Your task to perform on an android device: turn notification dots on Image 0: 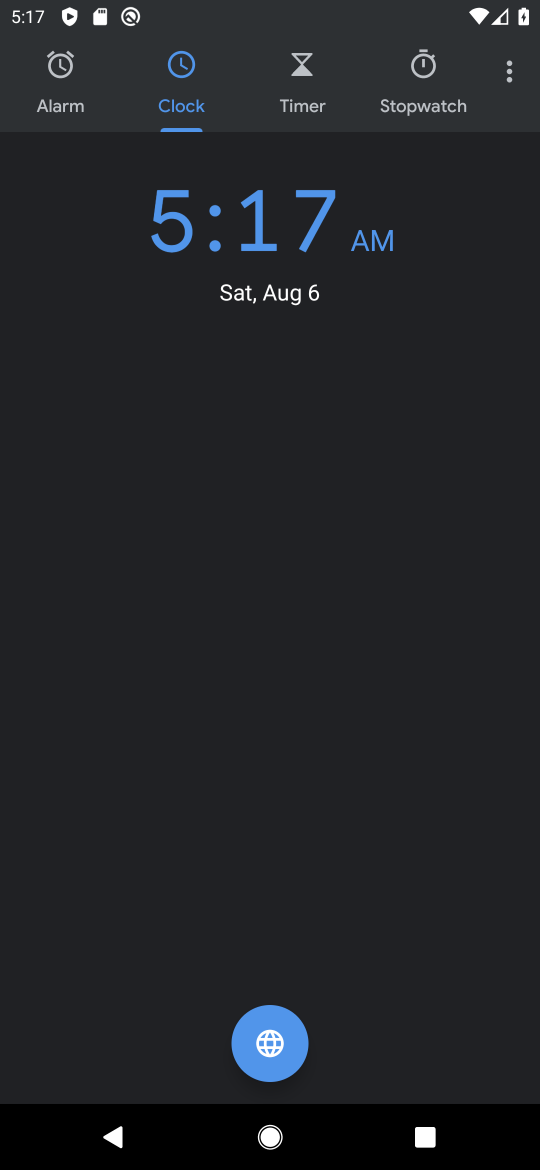
Step 0: press home button
Your task to perform on an android device: turn notification dots on Image 1: 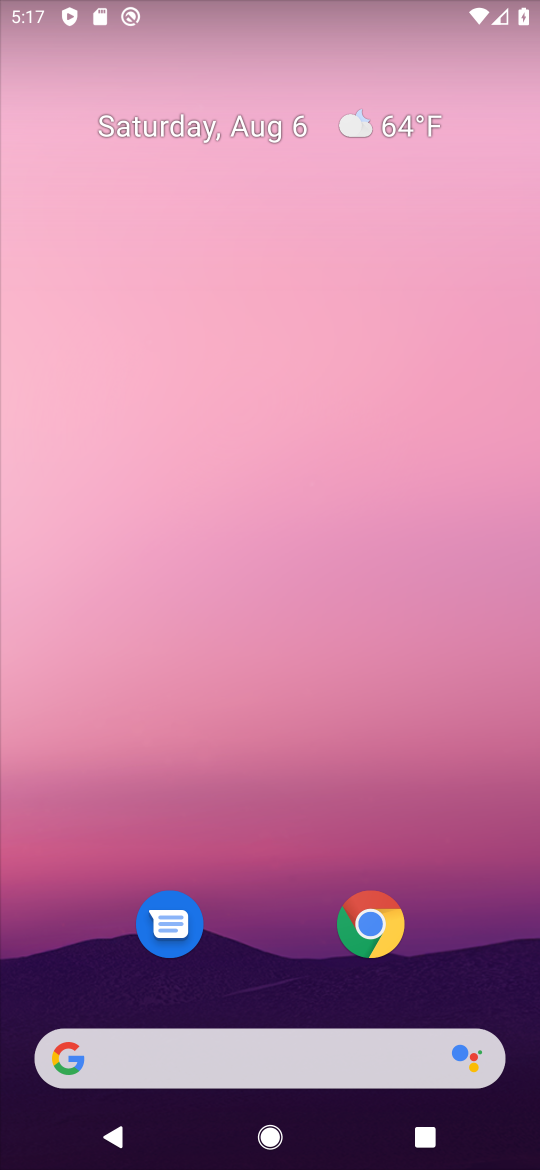
Step 1: drag from (282, 879) to (248, 181)
Your task to perform on an android device: turn notification dots on Image 2: 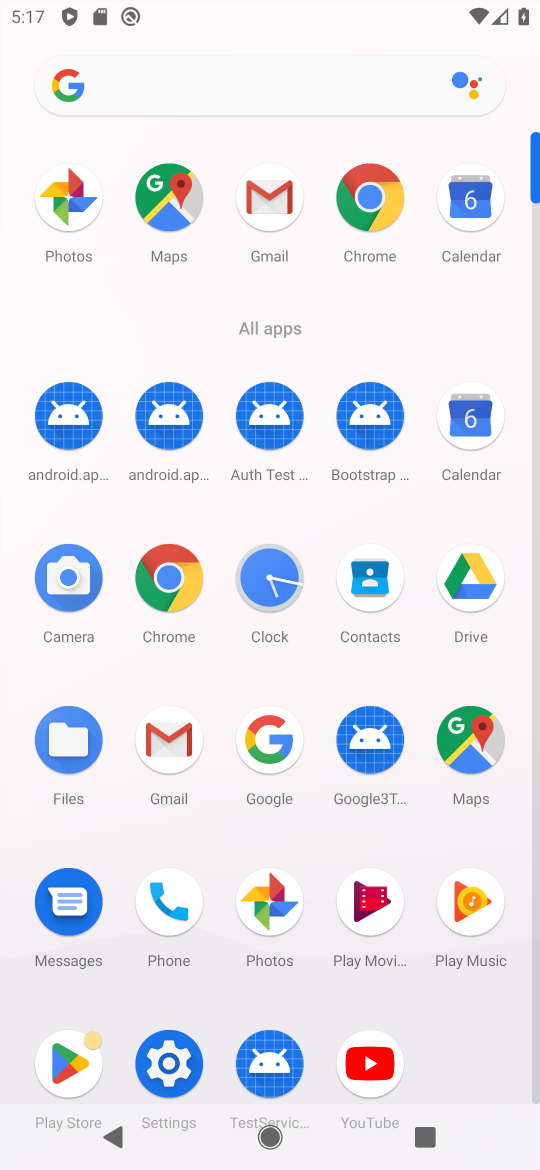
Step 2: click (164, 1062)
Your task to perform on an android device: turn notification dots on Image 3: 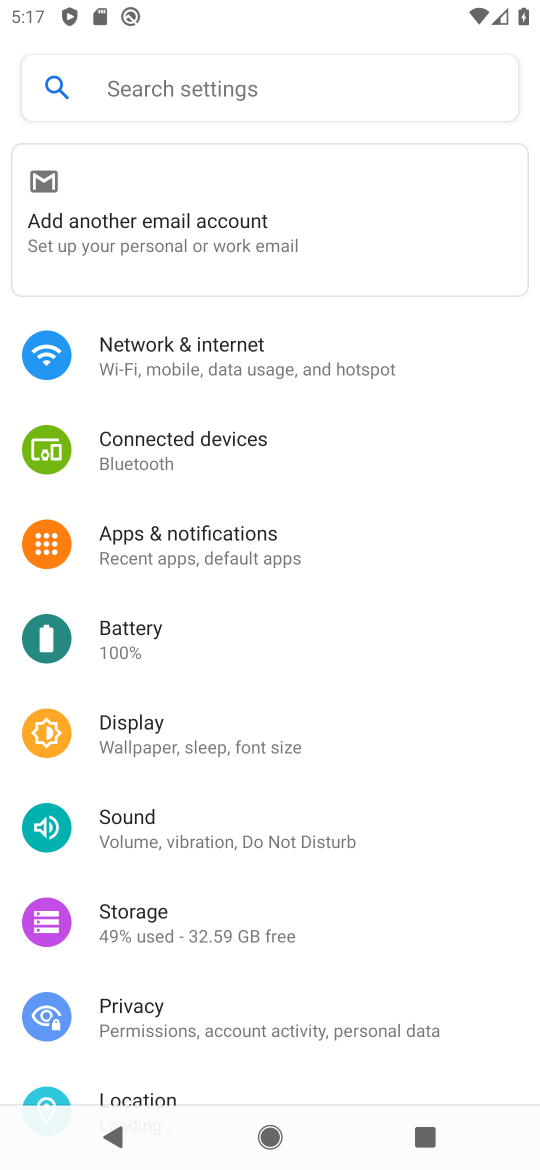
Step 3: click (192, 533)
Your task to perform on an android device: turn notification dots on Image 4: 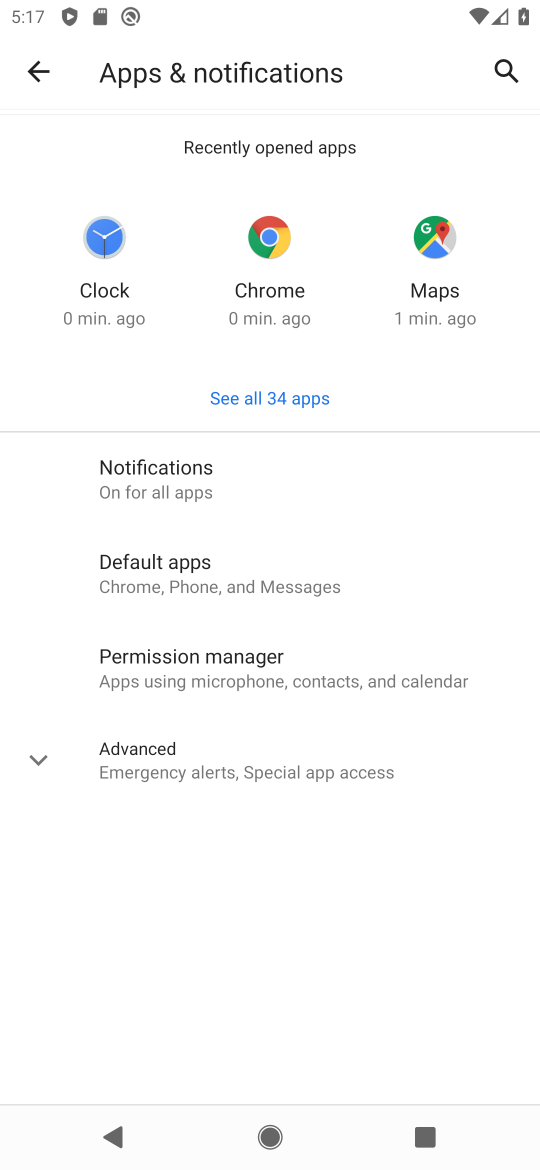
Step 4: click (186, 460)
Your task to perform on an android device: turn notification dots on Image 5: 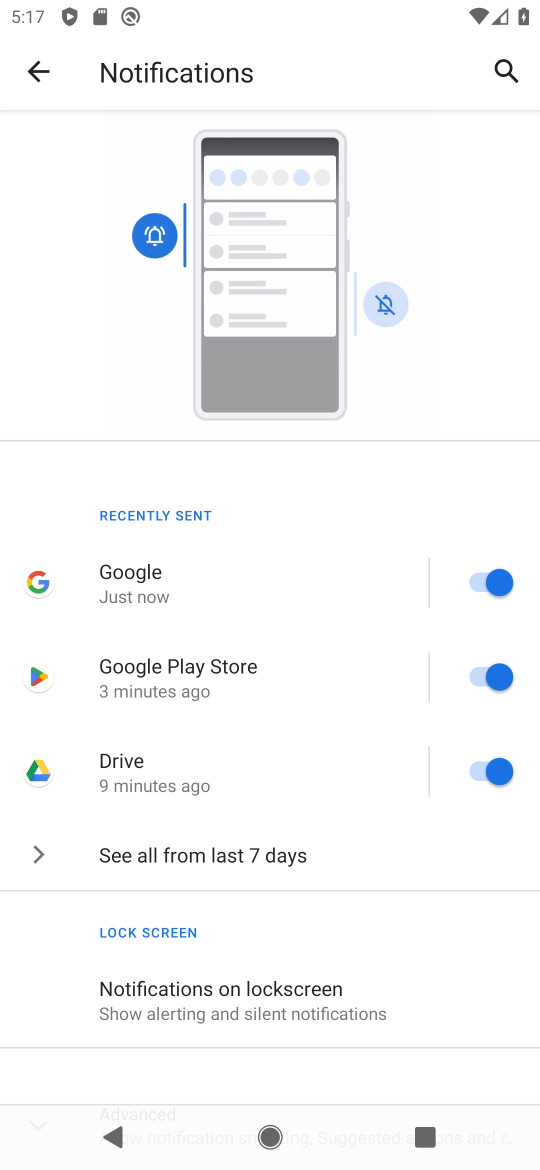
Step 5: drag from (223, 941) to (240, 436)
Your task to perform on an android device: turn notification dots on Image 6: 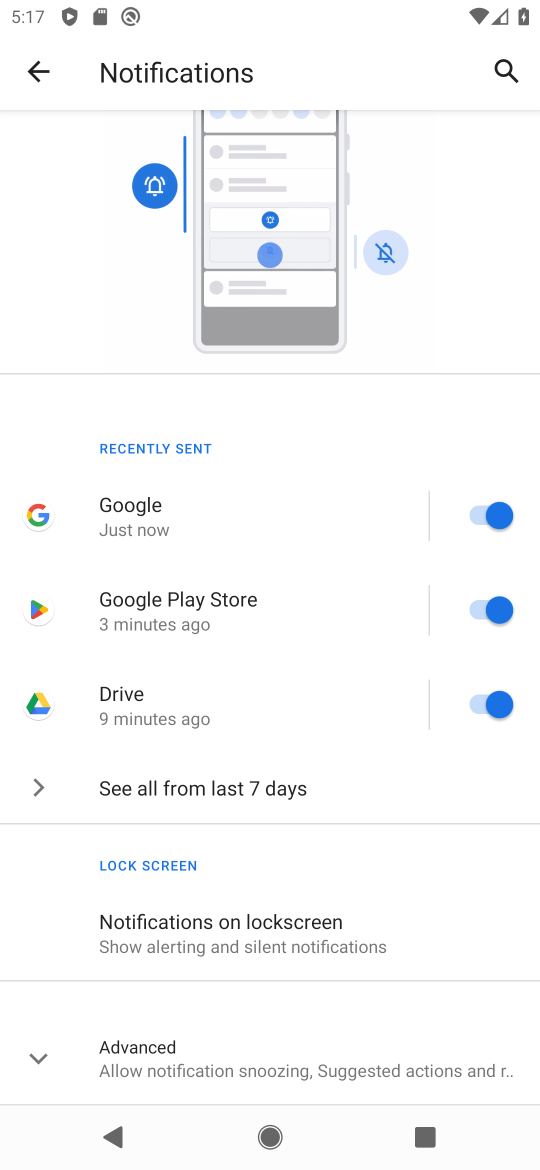
Step 6: click (38, 1059)
Your task to perform on an android device: turn notification dots on Image 7: 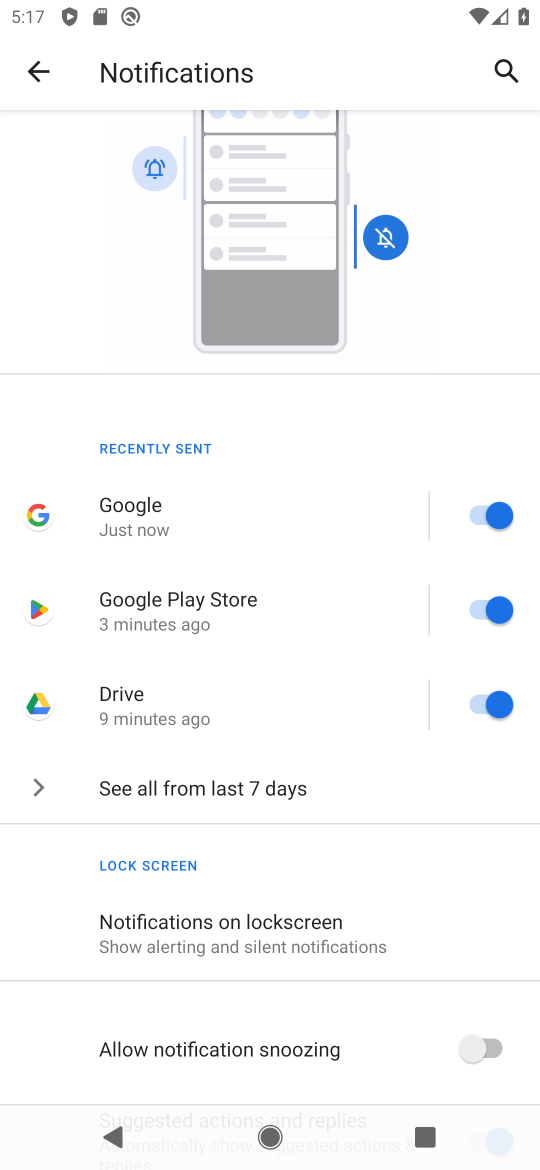
Step 7: task complete